Your task to perform on an android device: delete browsing data in the chrome app Image 0: 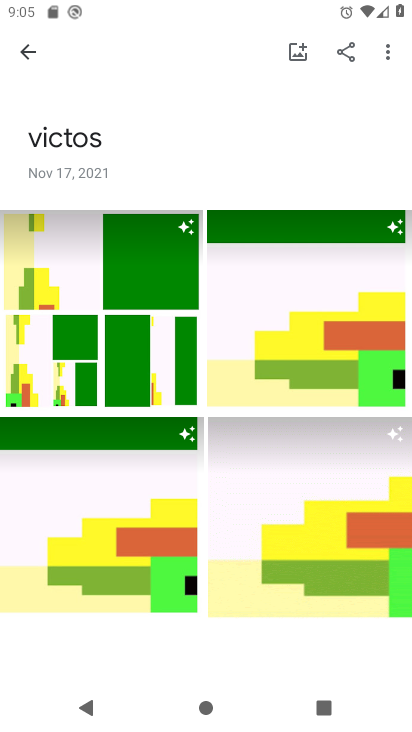
Step 0: press home button
Your task to perform on an android device: delete browsing data in the chrome app Image 1: 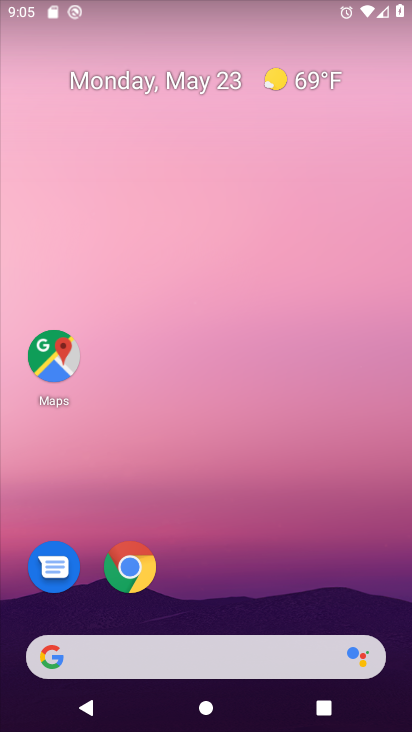
Step 1: drag from (226, 628) to (272, 2)
Your task to perform on an android device: delete browsing data in the chrome app Image 2: 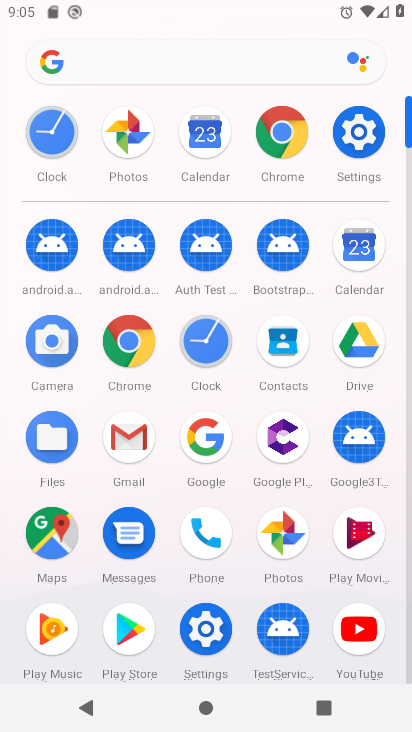
Step 2: click (147, 344)
Your task to perform on an android device: delete browsing data in the chrome app Image 3: 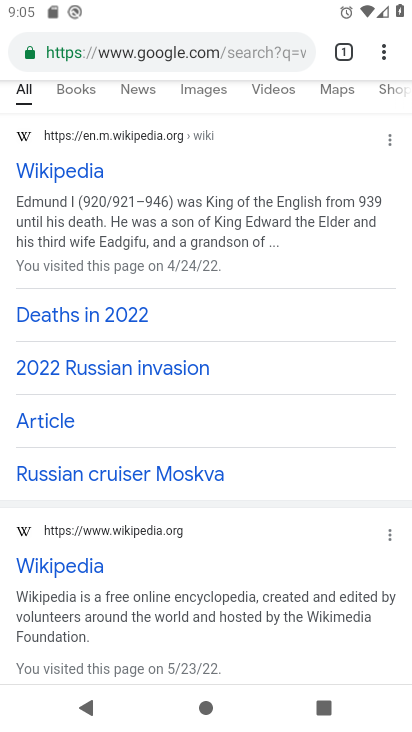
Step 3: click (378, 50)
Your task to perform on an android device: delete browsing data in the chrome app Image 4: 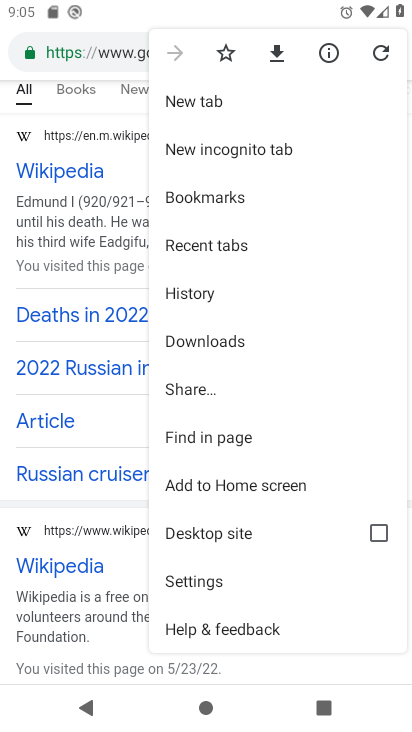
Step 4: click (216, 304)
Your task to perform on an android device: delete browsing data in the chrome app Image 5: 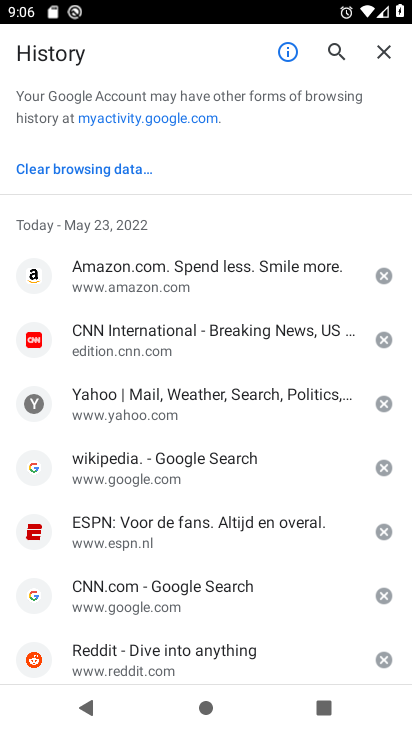
Step 5: click (101, 169)
Your task to perform on an android device: delete browsing data in the chrome app Image 6: 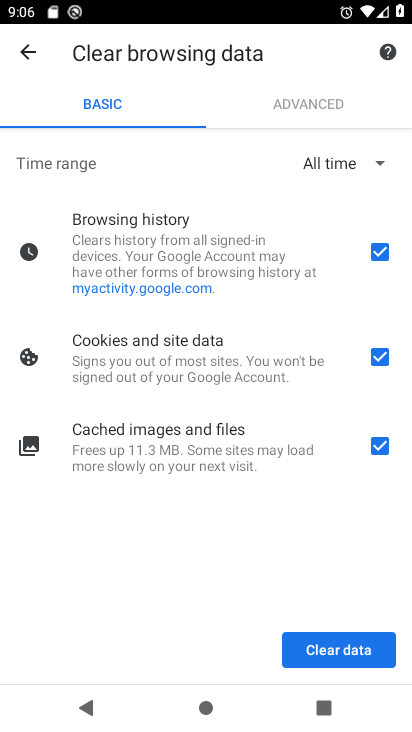
Step 6: click (342, 649)
Your task to perform on an android device: delete browsing data in the chrome app Image 7: 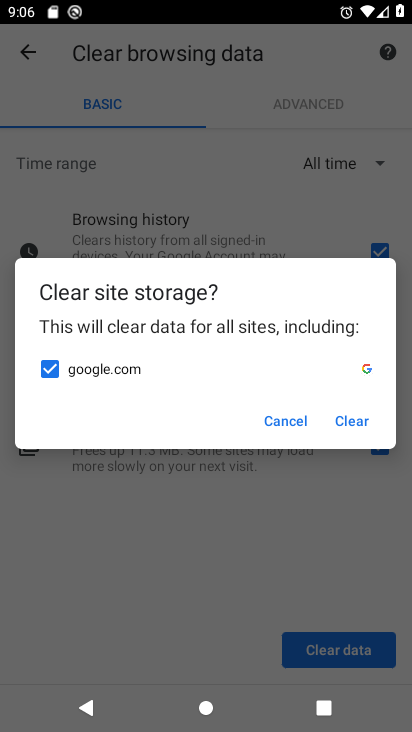
Step 7: click (343, 419)
Your task to perform on an android device: delete browsing data in the chrome app Image 8: 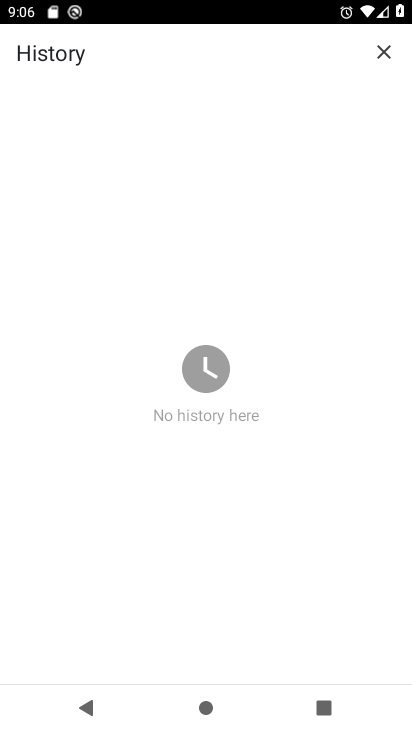
Step 8: task complete